Your task to perform on an android device: What's the weather going to be tomorrow? Image 0: 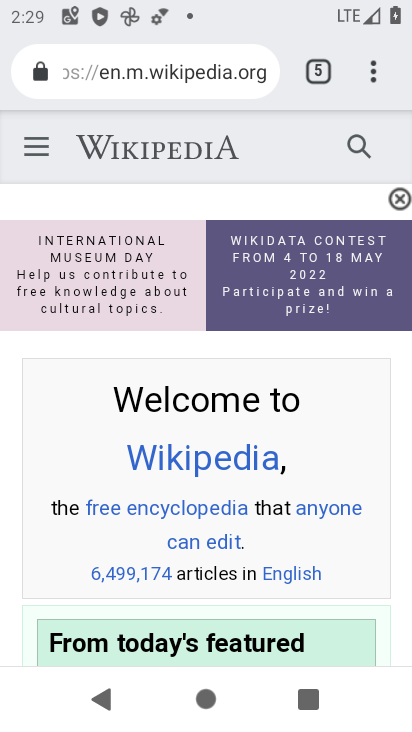
Step 0: press home button
Your task to perform on an android device: What's the weather going to be tomorrow? Image 1: 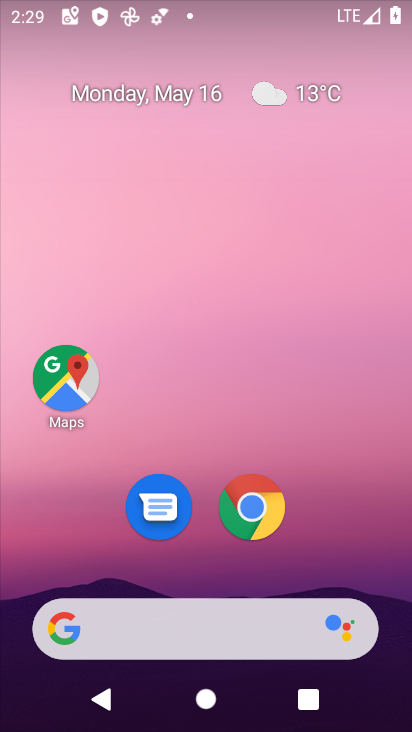
Step 1: click (316, 96)
Your task to perform on an android device: What's the weather going to be tomorrow? Image 2: 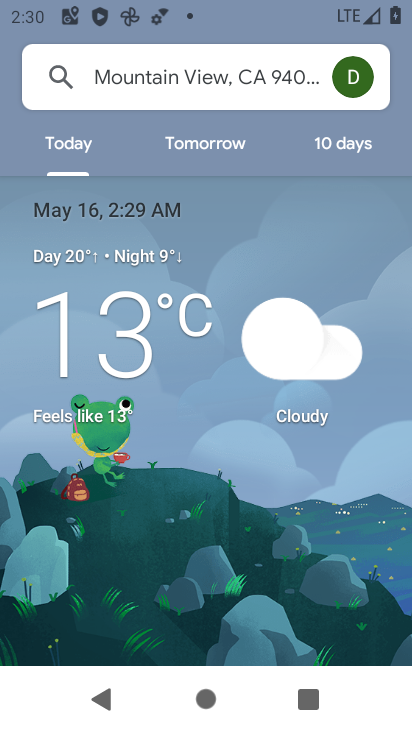
Step 2: click (189, 136)
Your task to perform on an android device: What's the weather going to be tomorrow? Image 3: 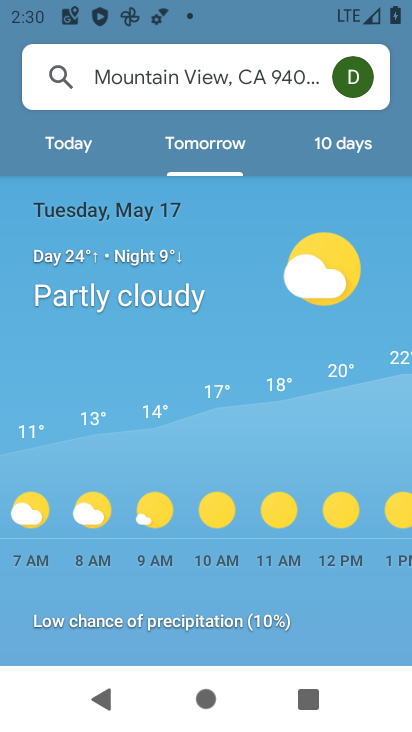
Step 3: task complete